Your task to perform on an android device: Search for "macbook" on ebay, select the first entry, and add it to the cart. Image 0: 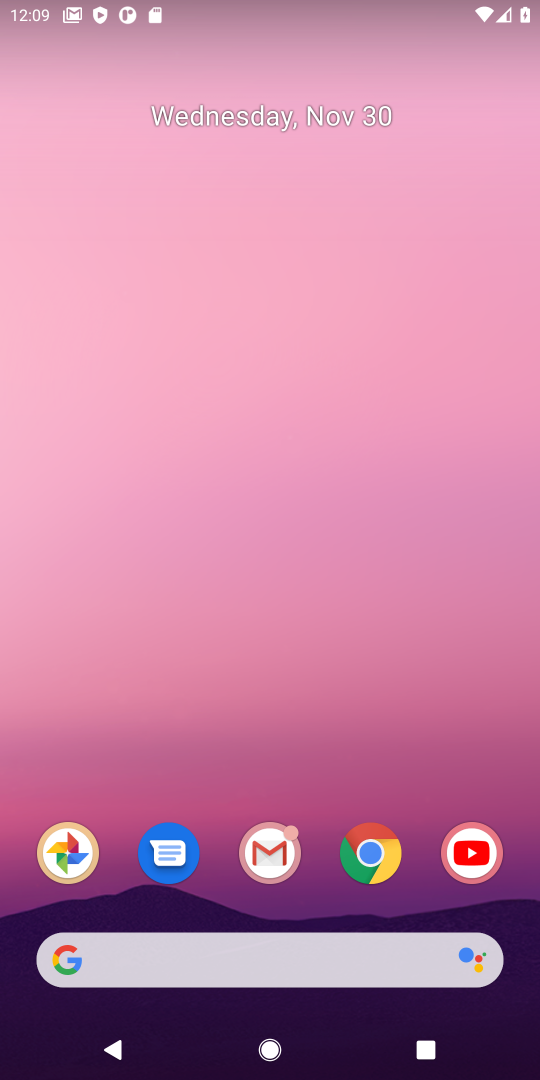
Step 0: click (381, 870)
Your task to perform on an android device: Search for "macbook" on ebay, select the first entry, and add it to the cart. Image 1: 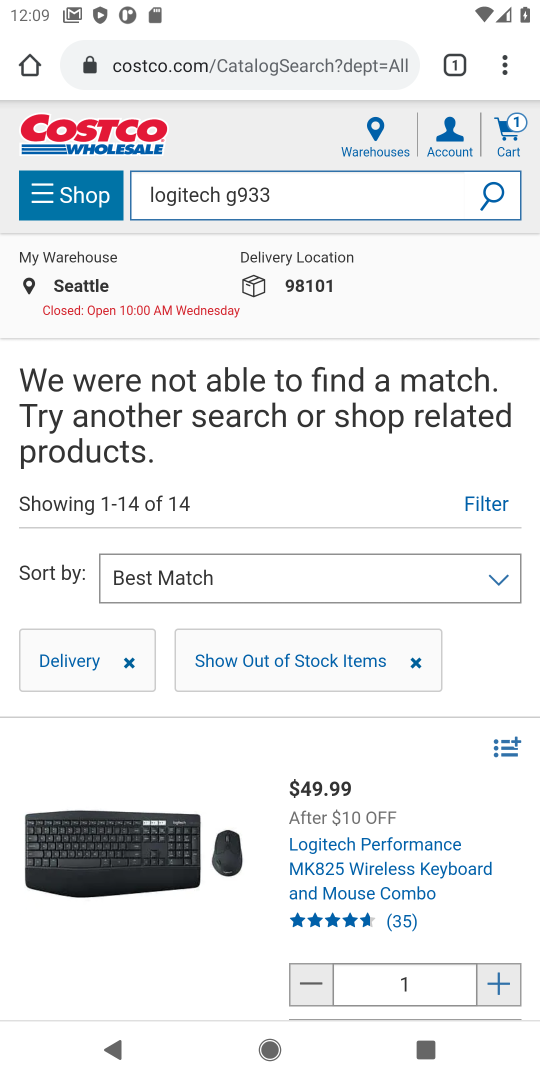
Step 1: click (210, 63)
Your task to perform on an android device: Search for "macbook" on ebay, select the first entry, and add it to the cart. Image 2: 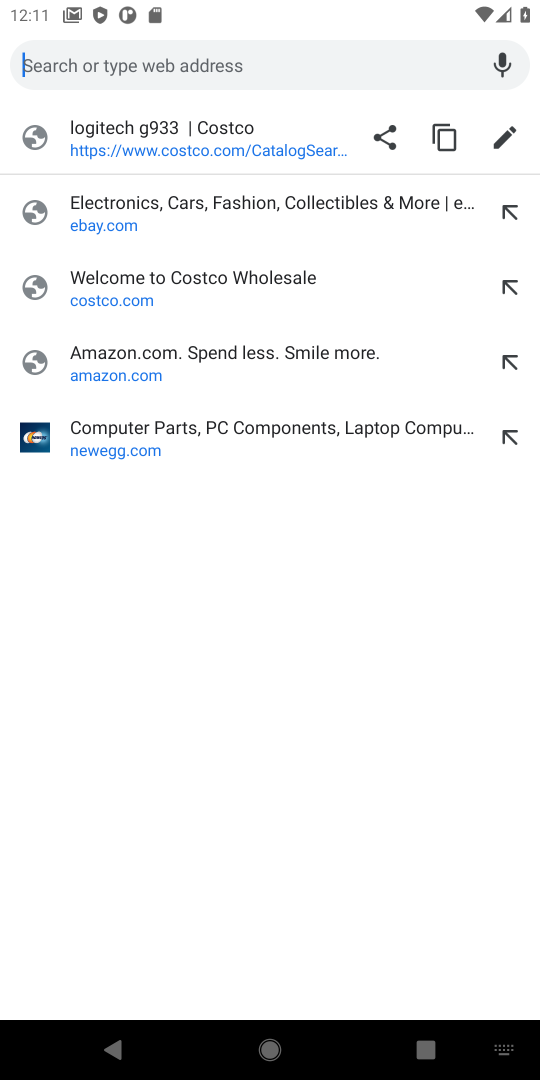
Step 2: click (160, 62)
Your task to perform on an android device: Search for "macbook" on ebay, select the first entry, and add it to the cart. Image 3: 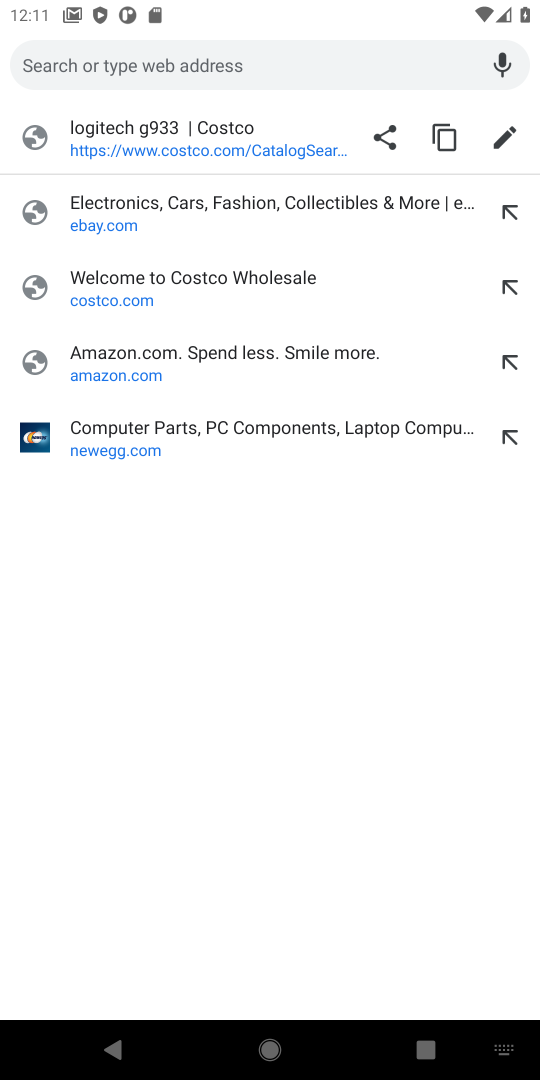
Step 3: click (130, 221)
Your task to perform on an android device: Search for "macbook" on ebay, select the first entry, and add it to the cart. Image 4: 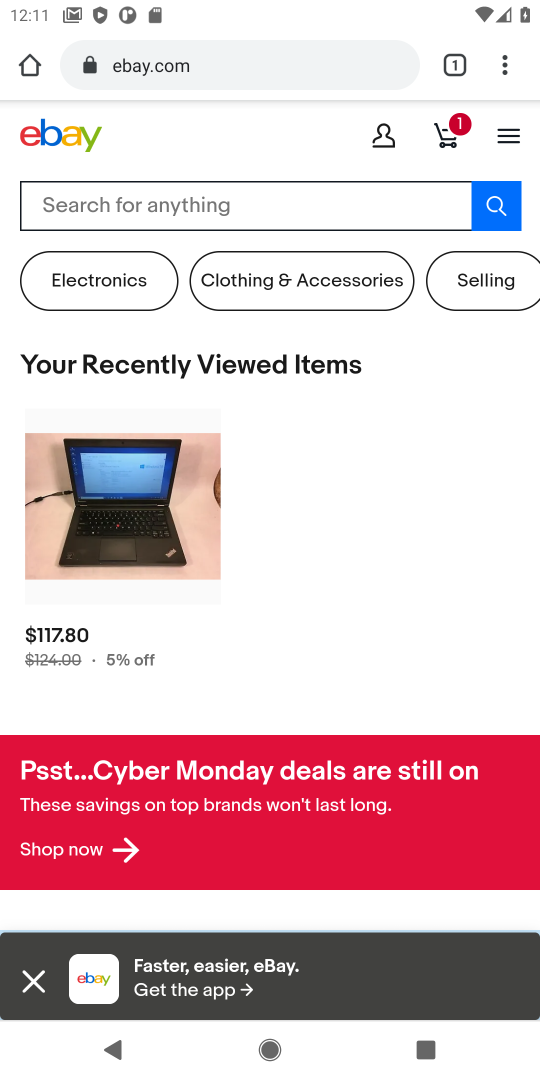
Step 4: click (186, 201)
Your task to perform on an android device: Search for "macbook" on ebay, select the first entry, and add it to the cart. Image 5: 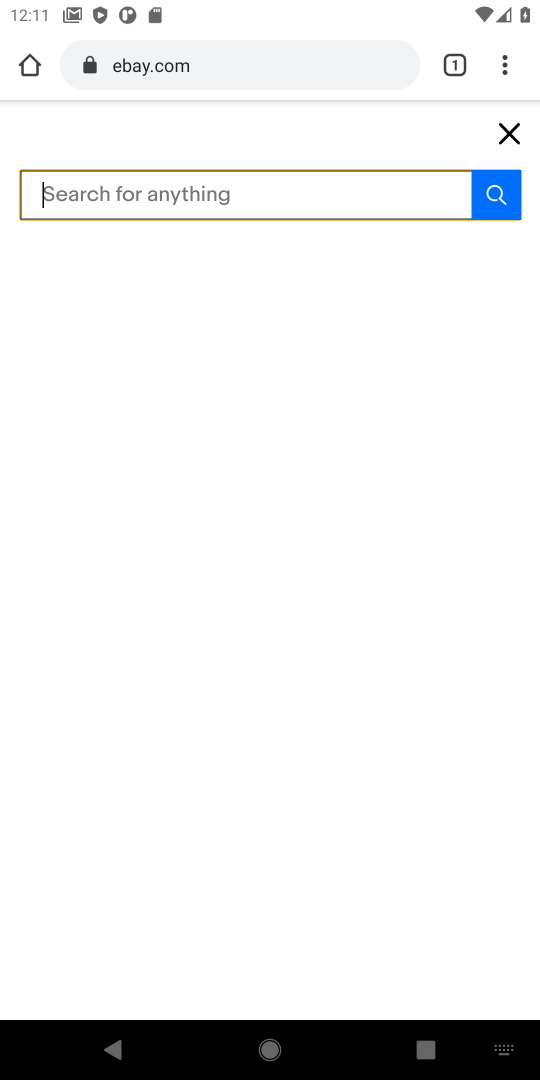
Step 5: type "macbook"
Your task to perform on an android device: Search for "macbook" on ebay, select the first entry, and add it to the cart. Image 6: 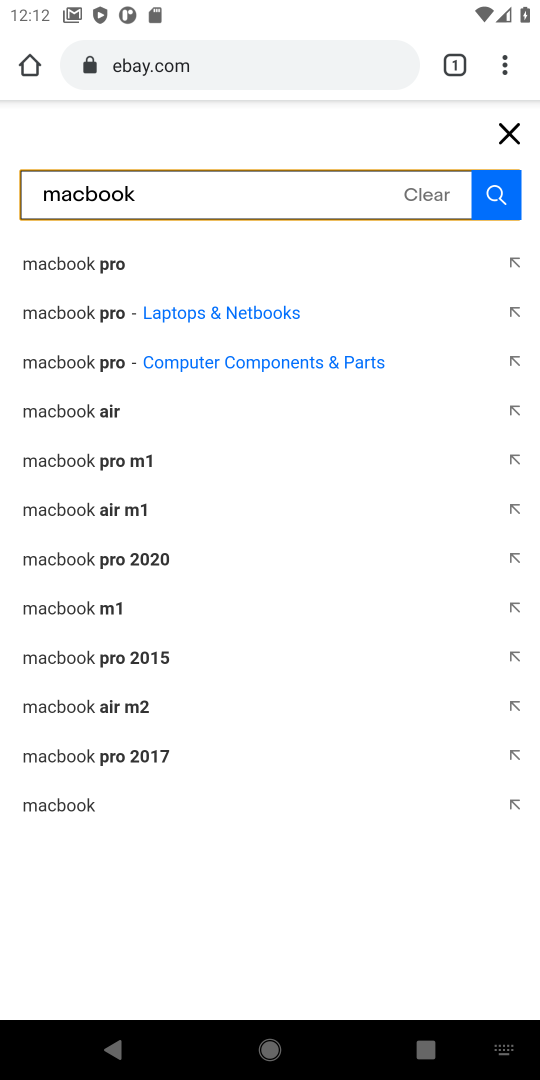
Step 6: click (65, 809)
Your task to perform on an android device: Search for "macbook" on ebay, select the first entry, and add it to the cart. Image 7: 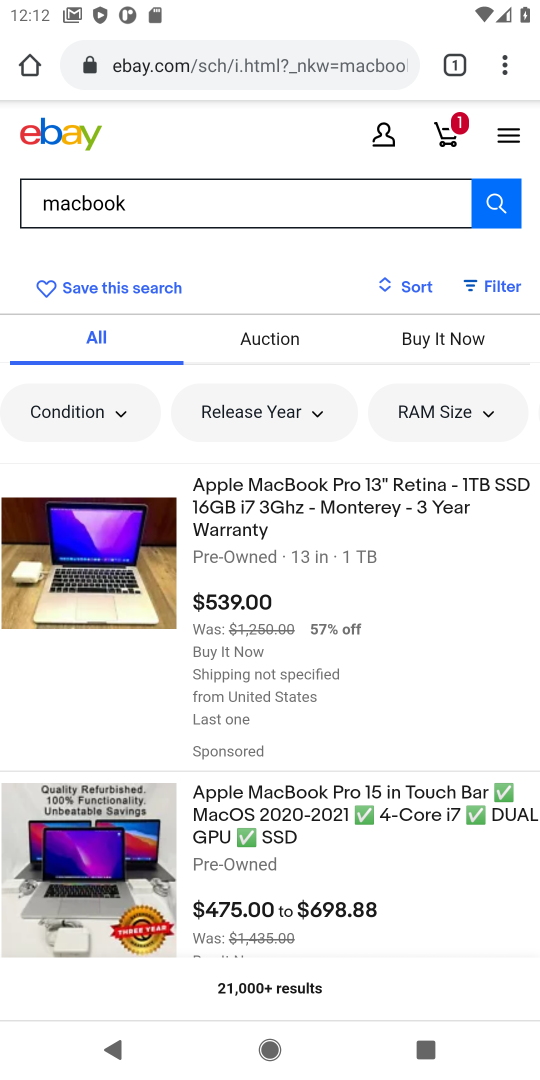
Step 7: click (242, 511)
Your task to perform on an android device: Search for "macbook" on ebay, select the first entry, and add it to the cart. Image 8: 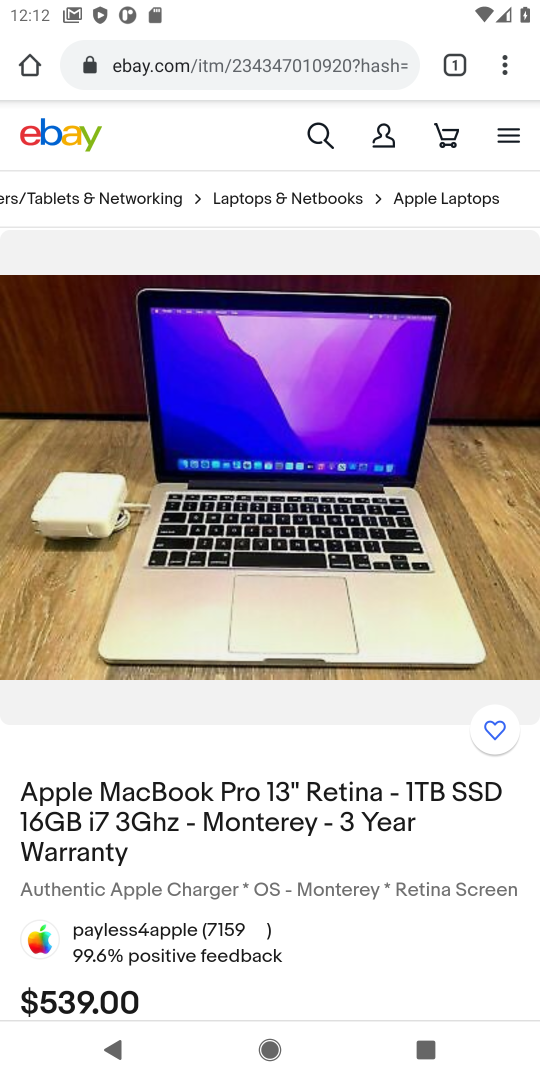
Step 8: drag from (332, 767) to (317, 405)
Your task to perform on an android device: Search for "macbook" on ebay, select the first entry, and add it to the cart. Image 9: 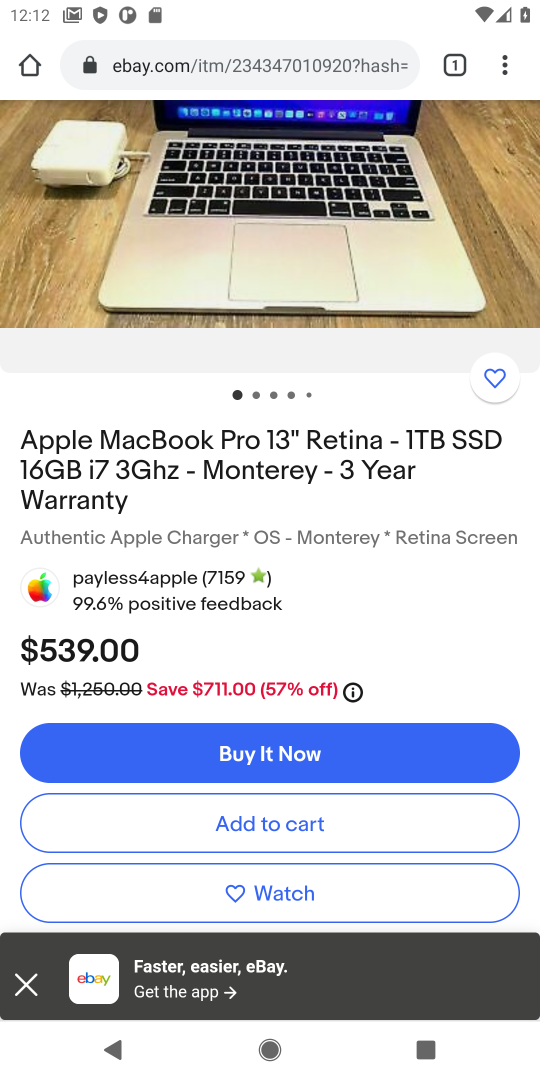
Step 9: click (238, 813)
Your task to perform on an android device: Search for "macbook" on ebay, select the first entry, and add it to the cart. Image 10: 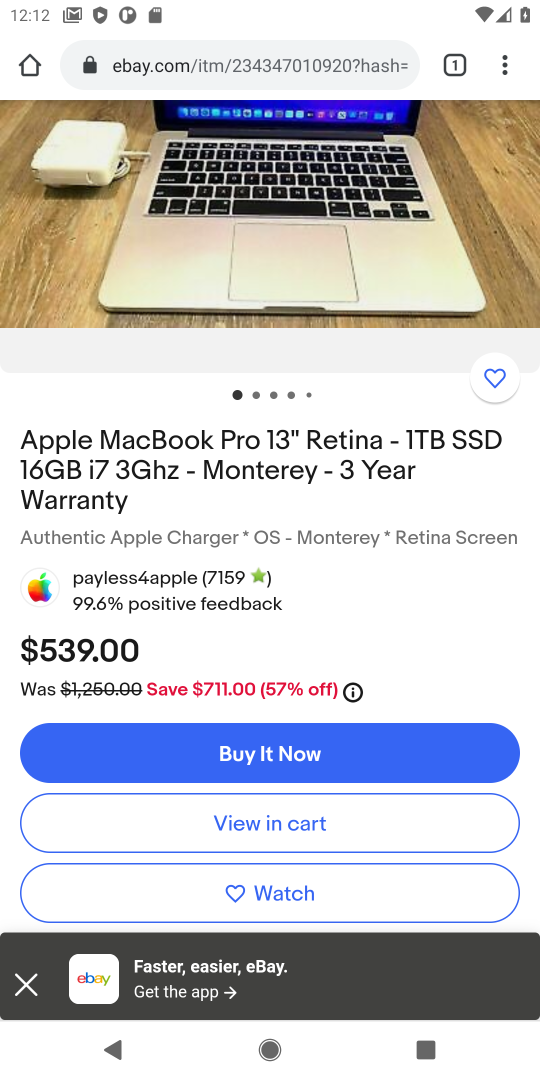
Step 10: task complete